Your task to perform on an android device: Open settings Image 0: 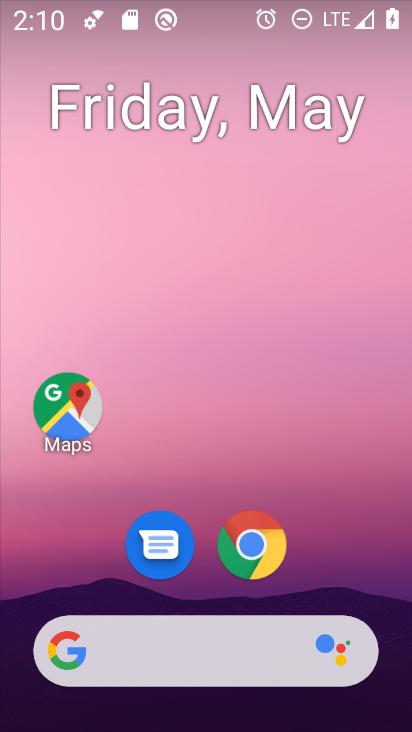
Step 0: drag from (343, 506) to (330, 255)
Your task to perform on an android device: Open settings Image 1: 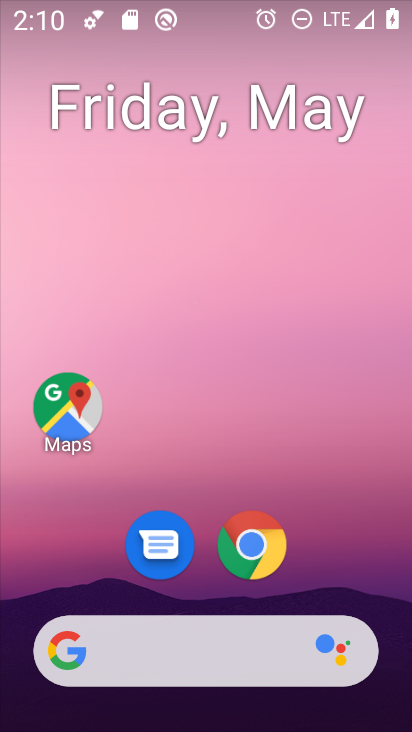
Step 1: drag from (326, 501) to (327, 120)
Your task to perform on an android device: Open settings Image 2: 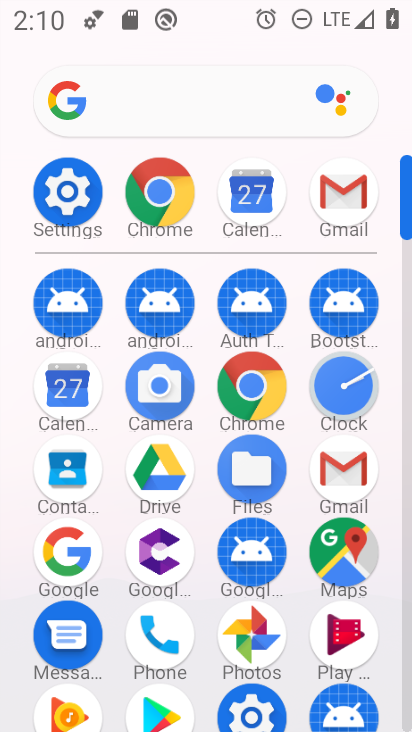
Step 2: click (54, 198)
Your task to perform on an android device: Open settings Image 3: 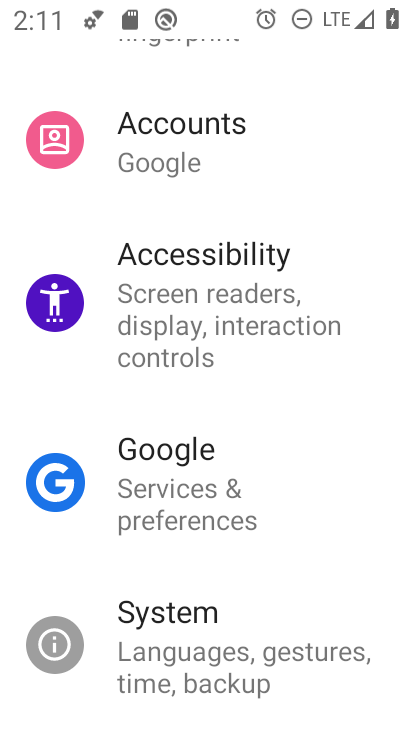
Step 3: task complete